Your task to perform on an android device: Open network settings Image 0: 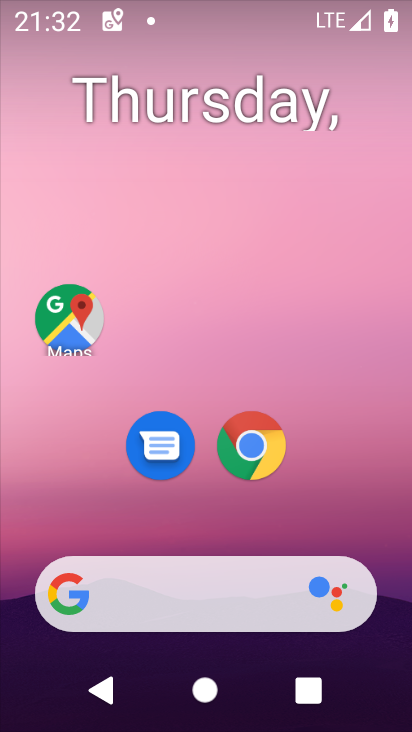
Step 0: drag from (232, 510) to (261, 256)
Your task to perform on an android device: Open network settings Image 1: 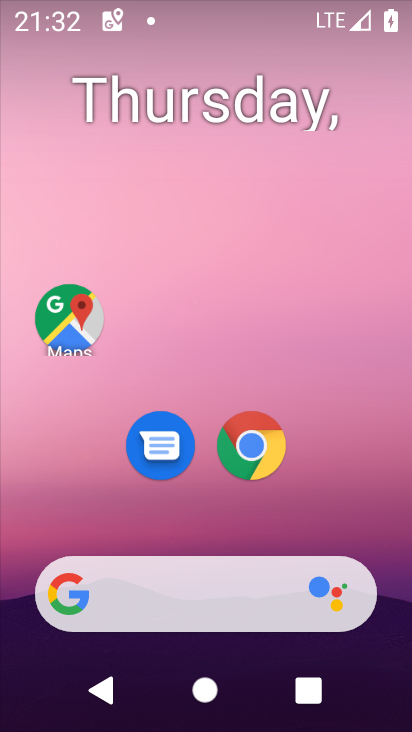
Step 1: drag from (235, 516) to (328, 20)
Your task to perform on an android device: Open network settings Image 2: 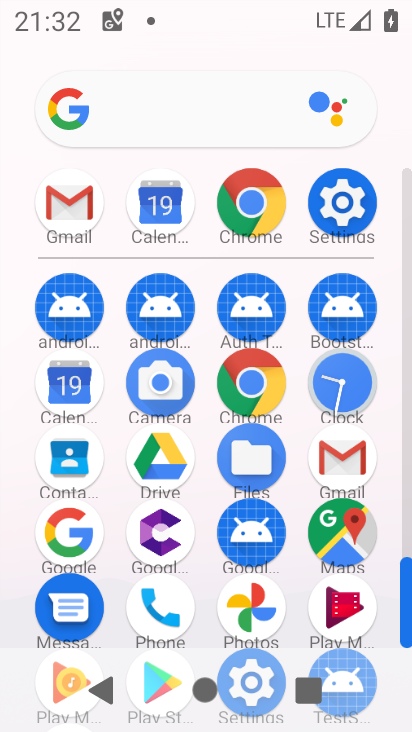
Step 2: click (336, 209)
Your task to perform on an android device: Open network settings Image 3: 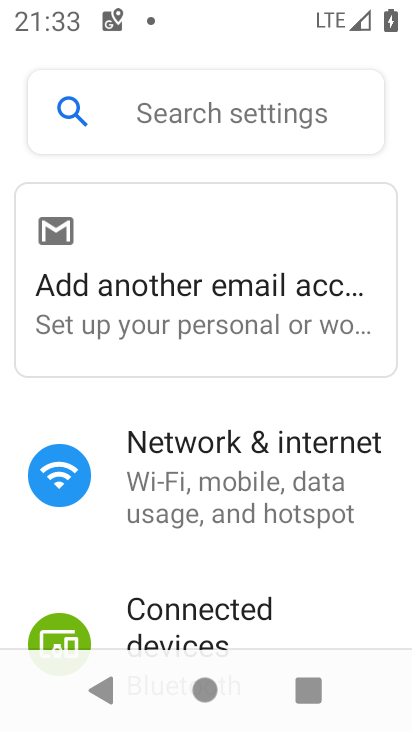
Step 3: drag from (221, 604) to (363, 102)
Your task to perform on an android device: Open network settings Image 4: 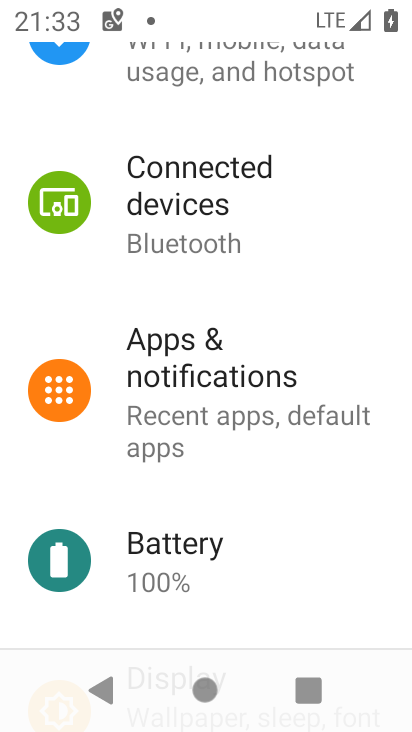
Step 4: drag from (175, 87) to (284, 575)
Your task to perform on an android device: Open network settings Image 5: 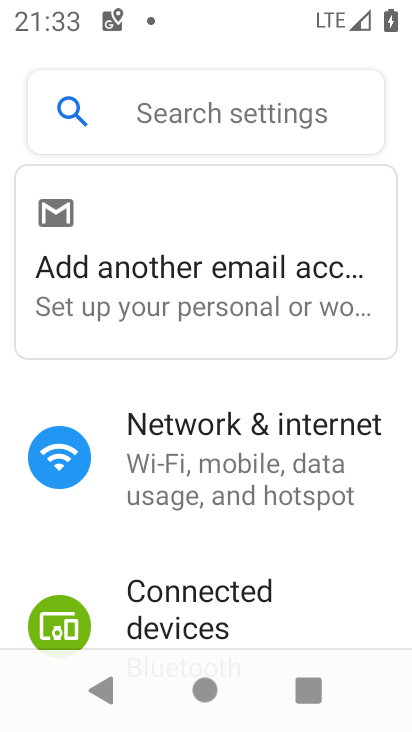
Step 5: click (143, 458)
Your task to perform on an android device: Open network settings Image 6: 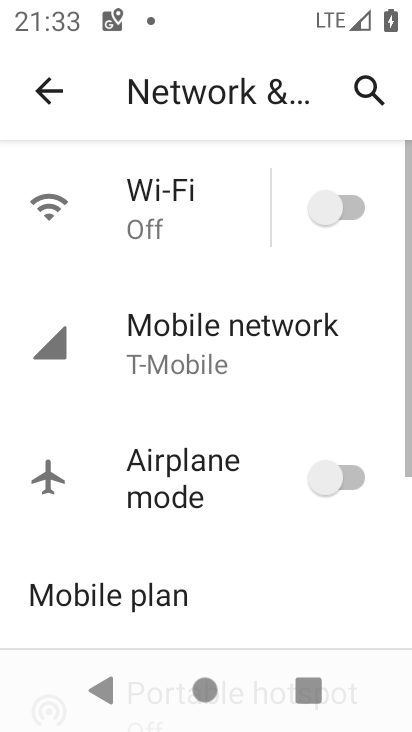
Step 6: click (196, 375)
Your task to perform on an android device: Open network settings Image 7: 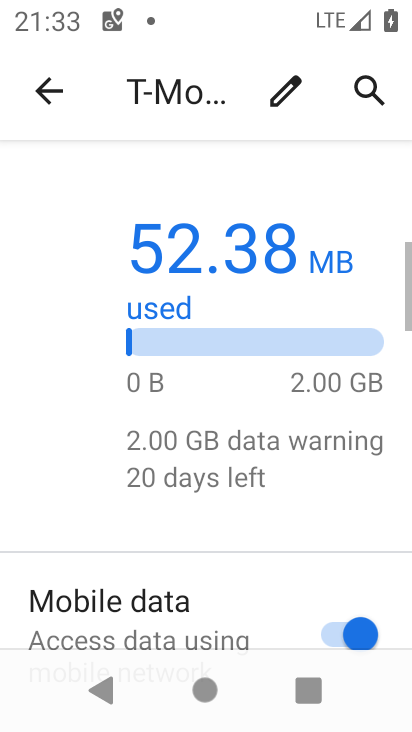
Step 7: task complete